Your task to perform on an android device: Toggle the flashlight Image 0: 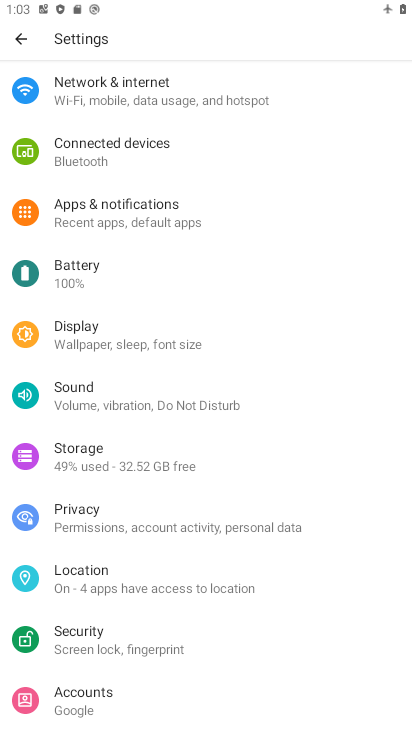
Step 0: drag from (149, 682) to (144, 256)
Your task to perform on an android device: Toggle the flashlight Image 1: 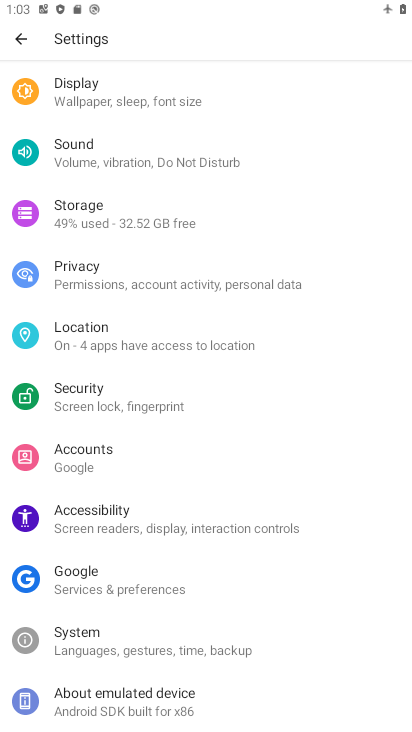
Step 1: task complete